Your task to perform on an android device: turn off priority inbox in the gmail app Image 0: 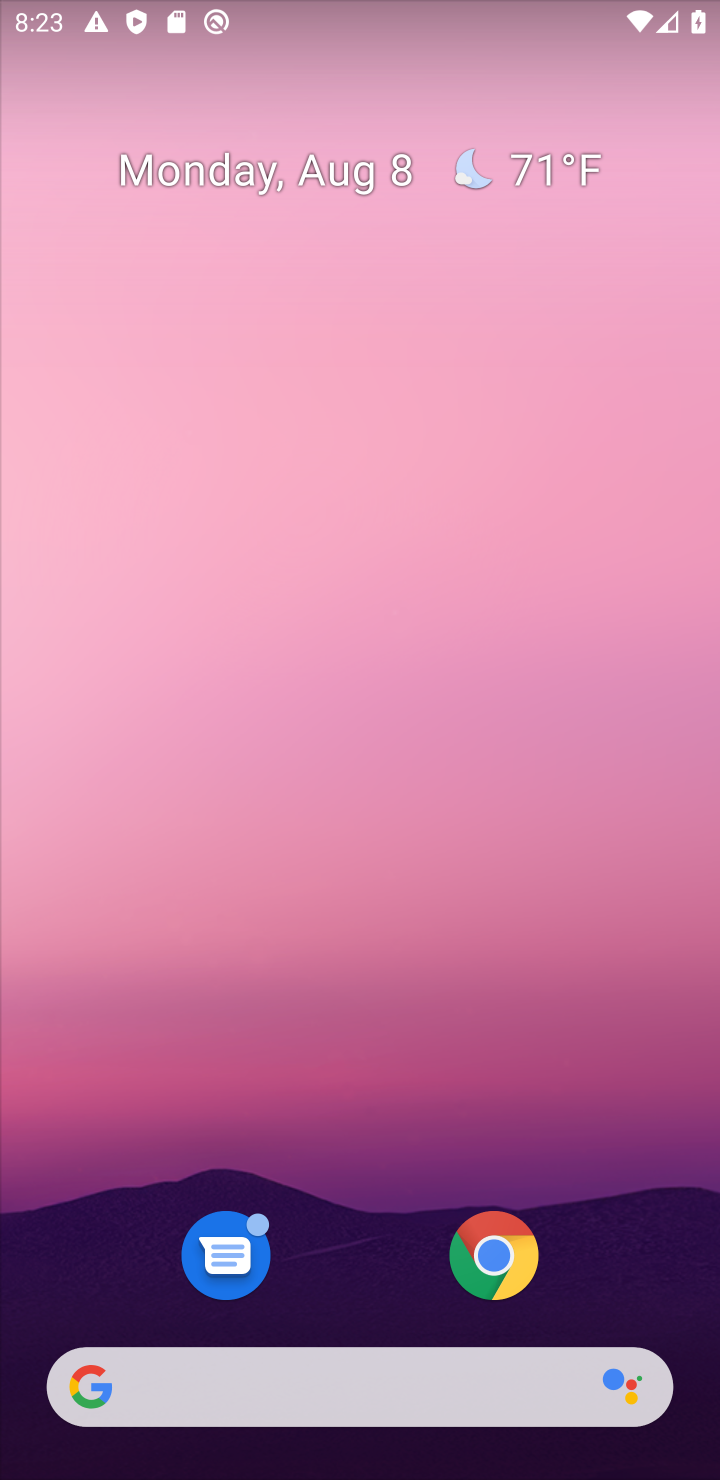
Step 0: drag from (371, 1291) to (358, 27)
Your task to perform on an android device: turn off priority inbox in the gmail app Image 1: 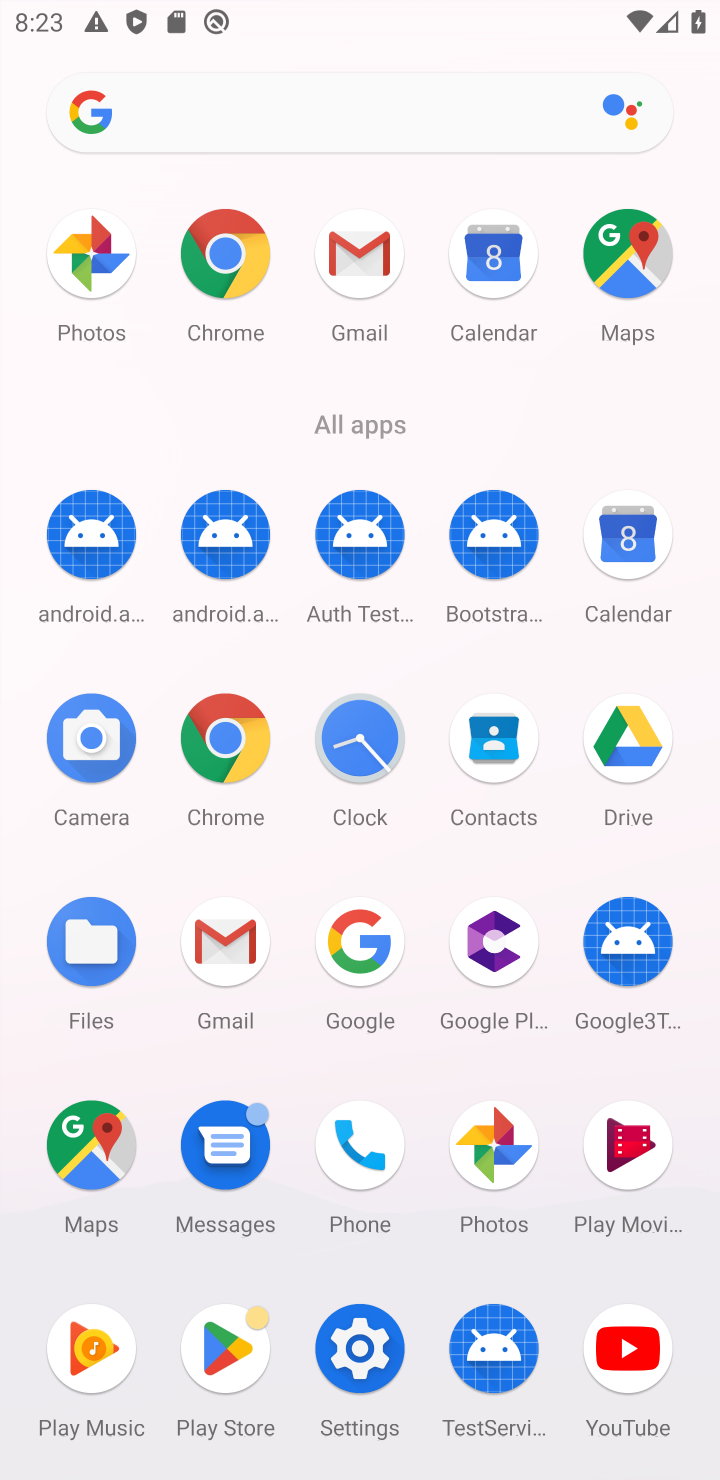
Step 1: click (230, 936)
Your task to perform on an android device: turn off priority inbox in the gmail app Image 2: 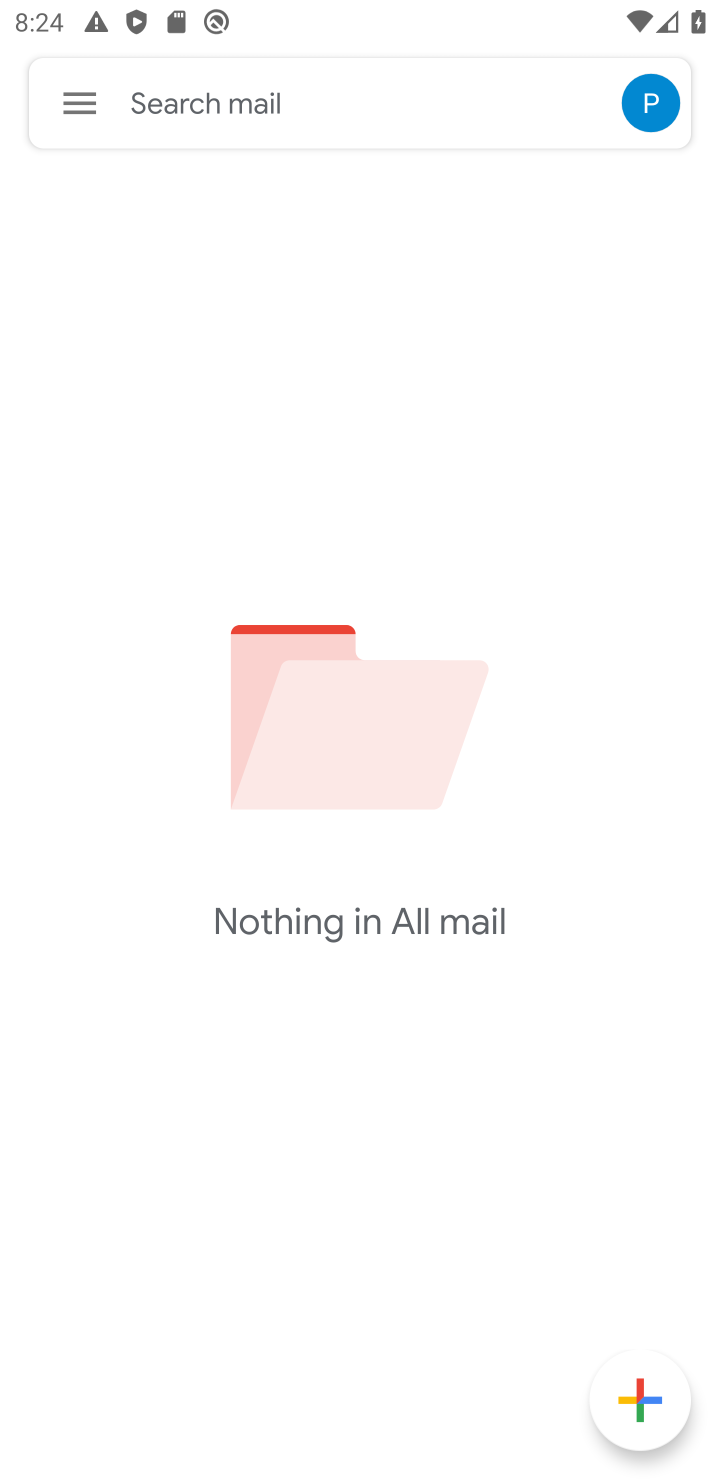
Step 2: click (62, 99)
Your task to perform on an android device: turn off priority inbox in the gmail app Image 3: 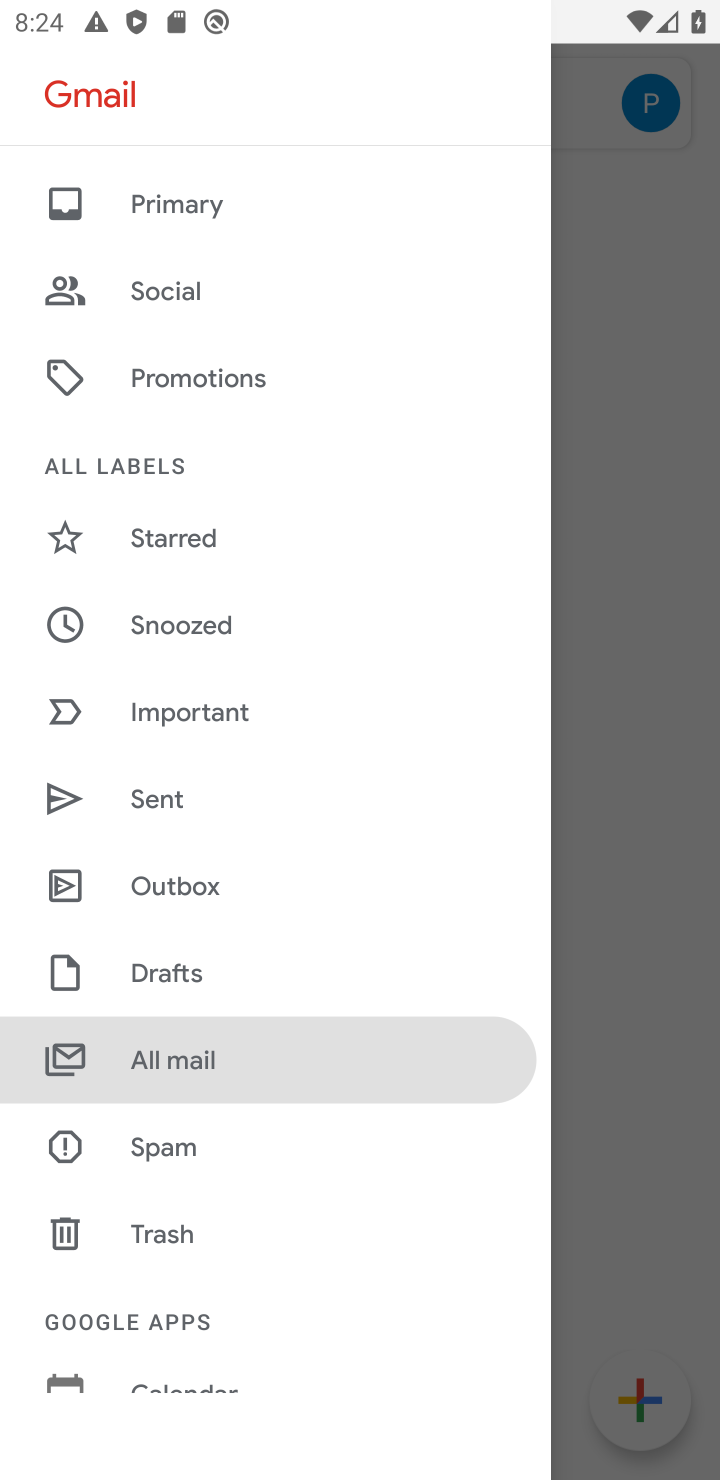
Step 3: drag from (257, 1292) to (267, 199)
Your task to perform on an android device: turn off priority inbox in the gmail app Image 4: 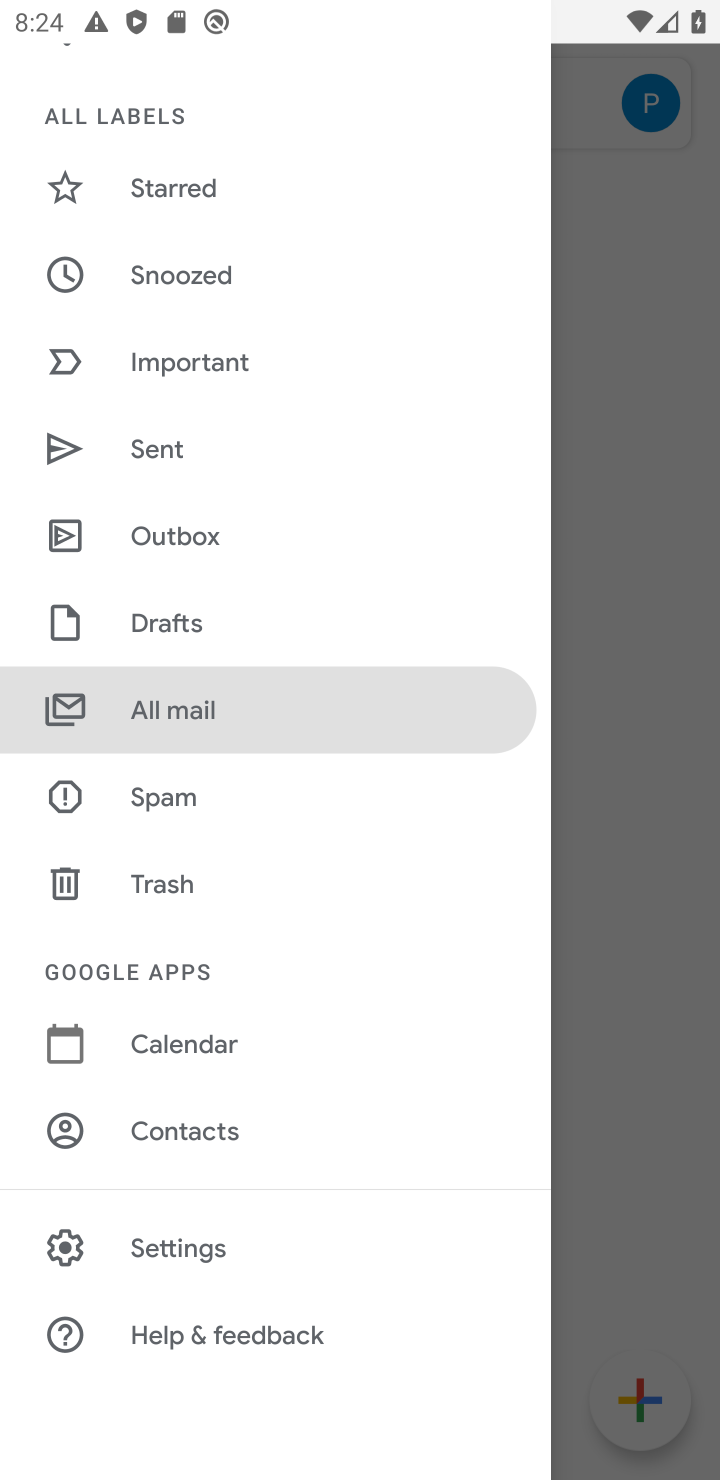
Step 4: click (239, 1244)
Your task to perform on an android device: turn off priority inbox in the gmail app Image 5: 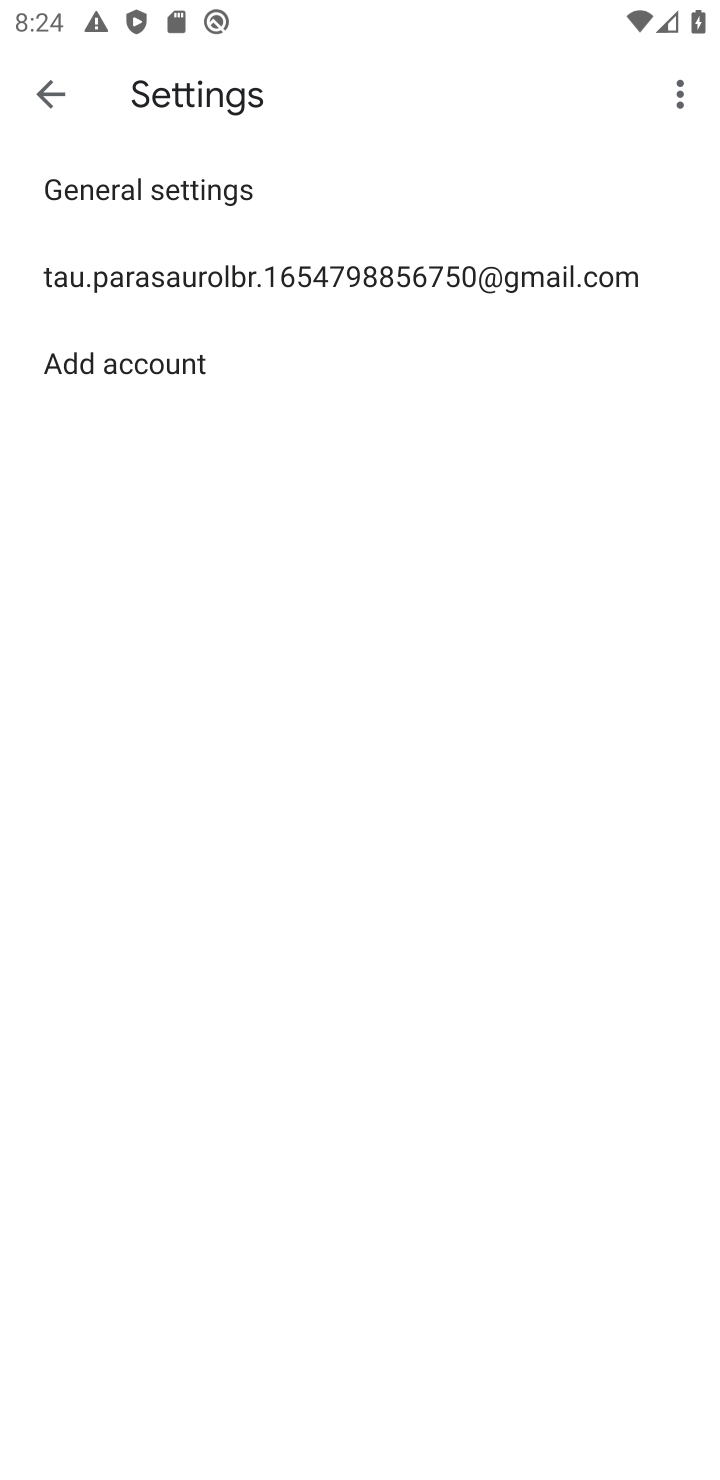
Step 5: click (285, 281)
Your task to perform on an android device: turn off priority inbox in the gmail app Image 6: 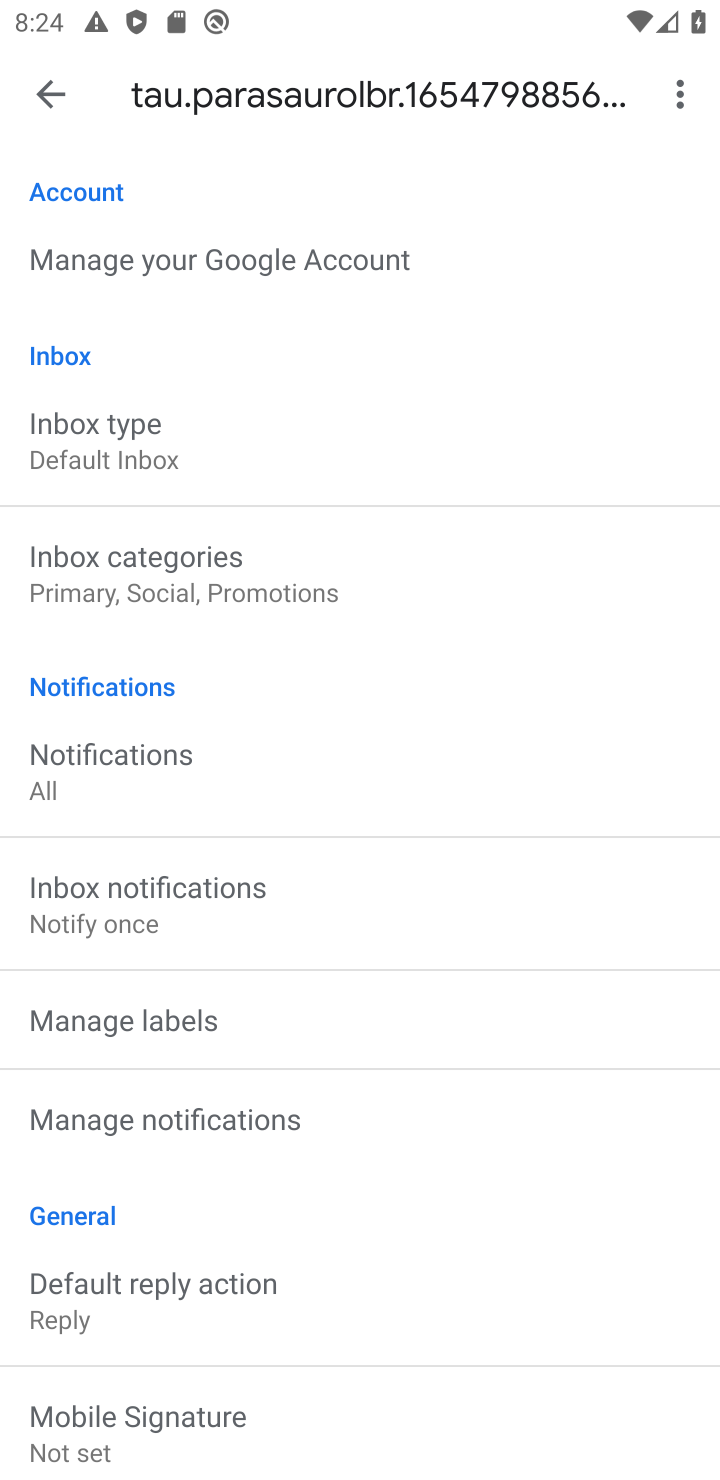
Step 6: click (272, 565)
Your task to perform on an android device: turn off priority inbox in the gmail app Image 7: 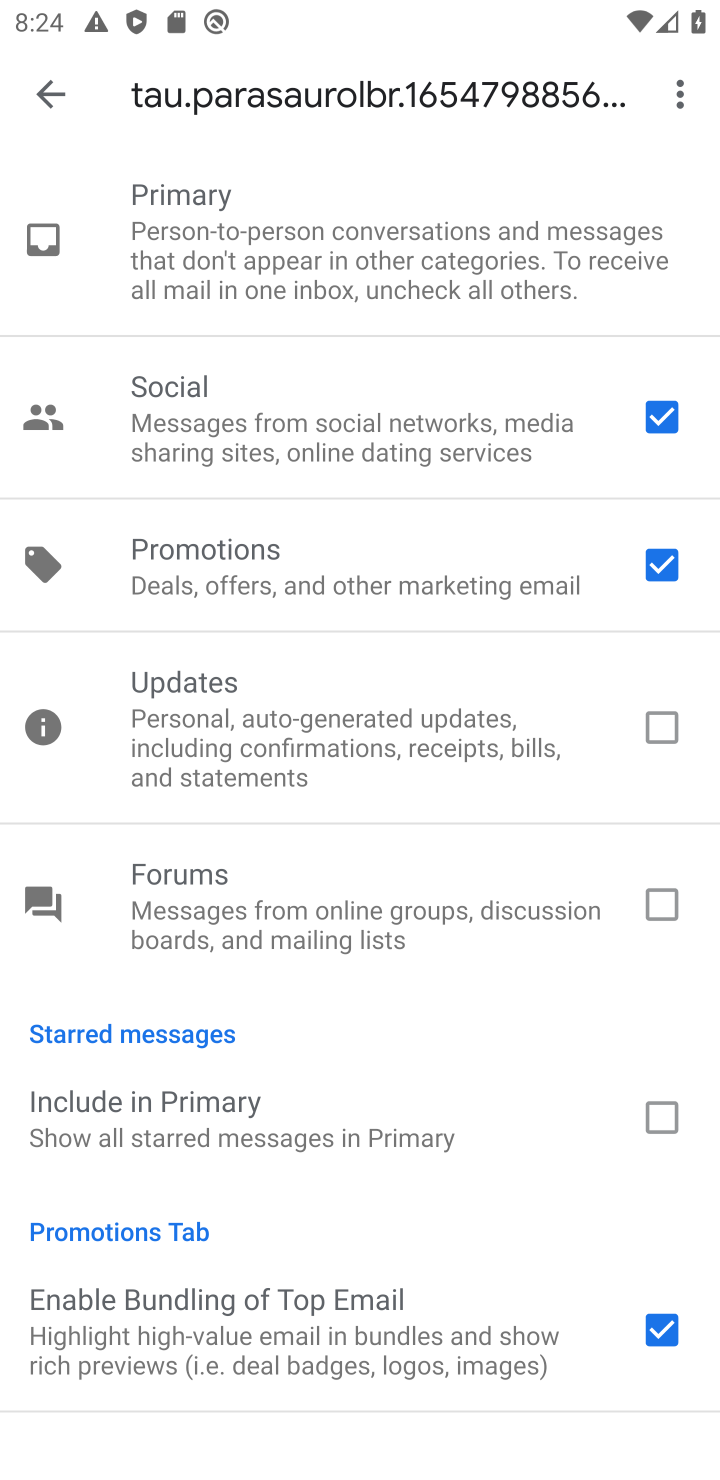
Step 7: click (46, 102)
Your task to perform on an android device: turn off priority inbox in the gmail app Image 8: 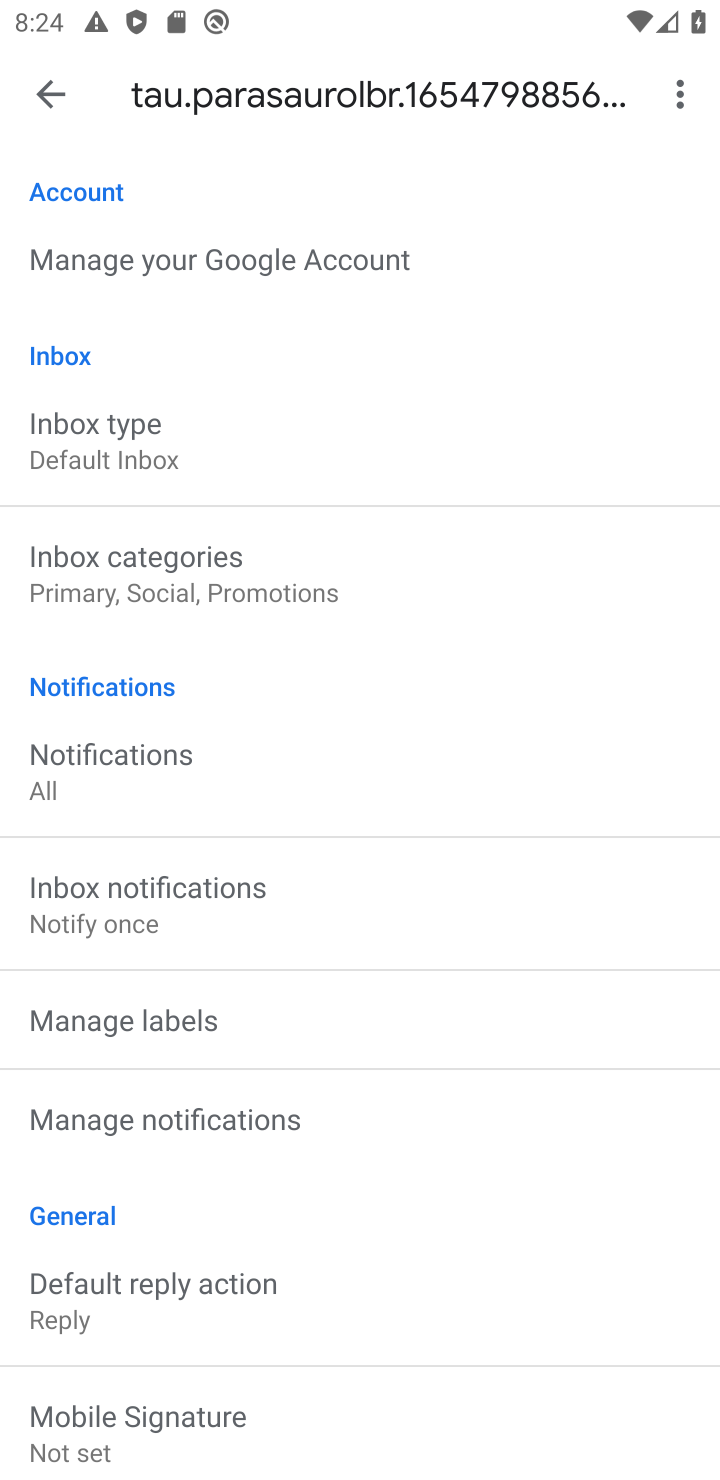
Step 8: drag from (290, 449) to (272, 1407)
Your task to perform on an android device: turn off priority inbox in the gmail app Image 9: 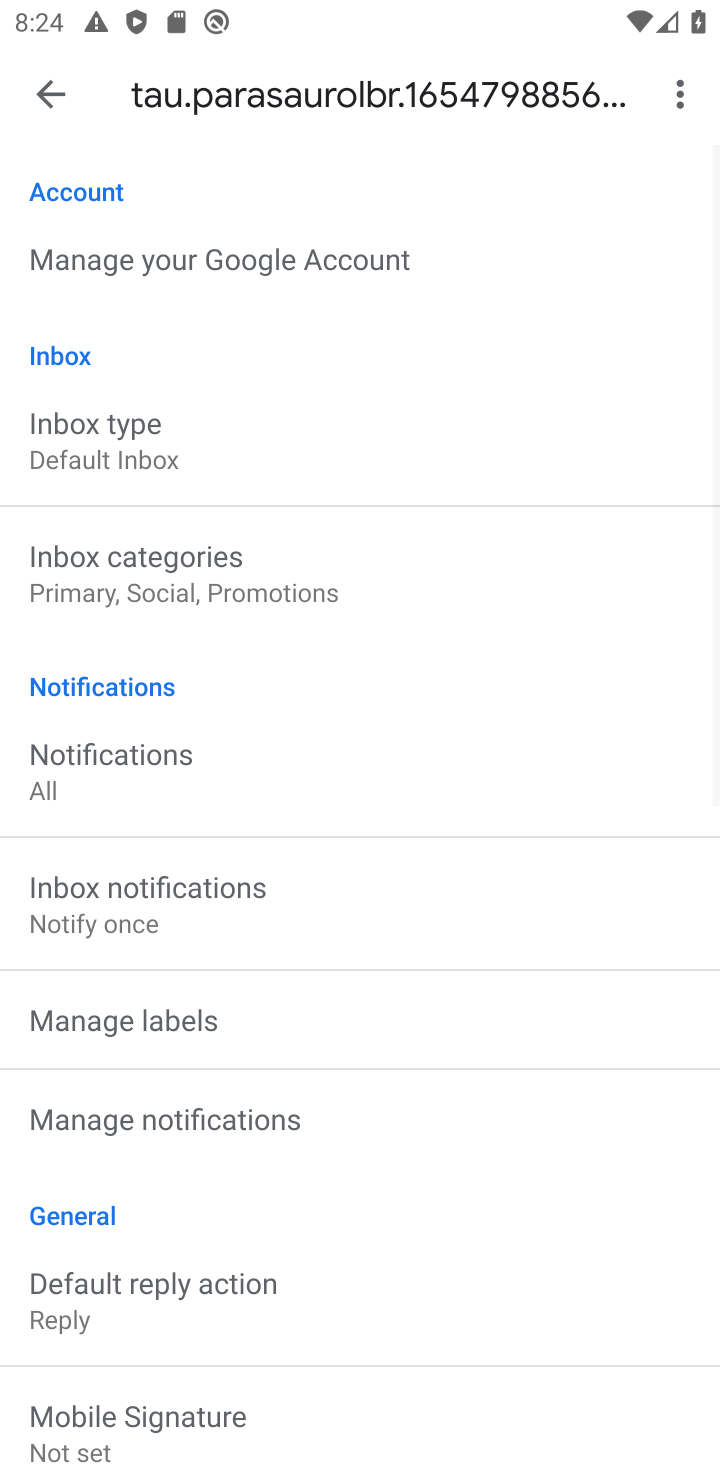
Step 9: click (176, 445)
Your task to perform on an android device: turn off priority inbox in the gmail app Image 10: 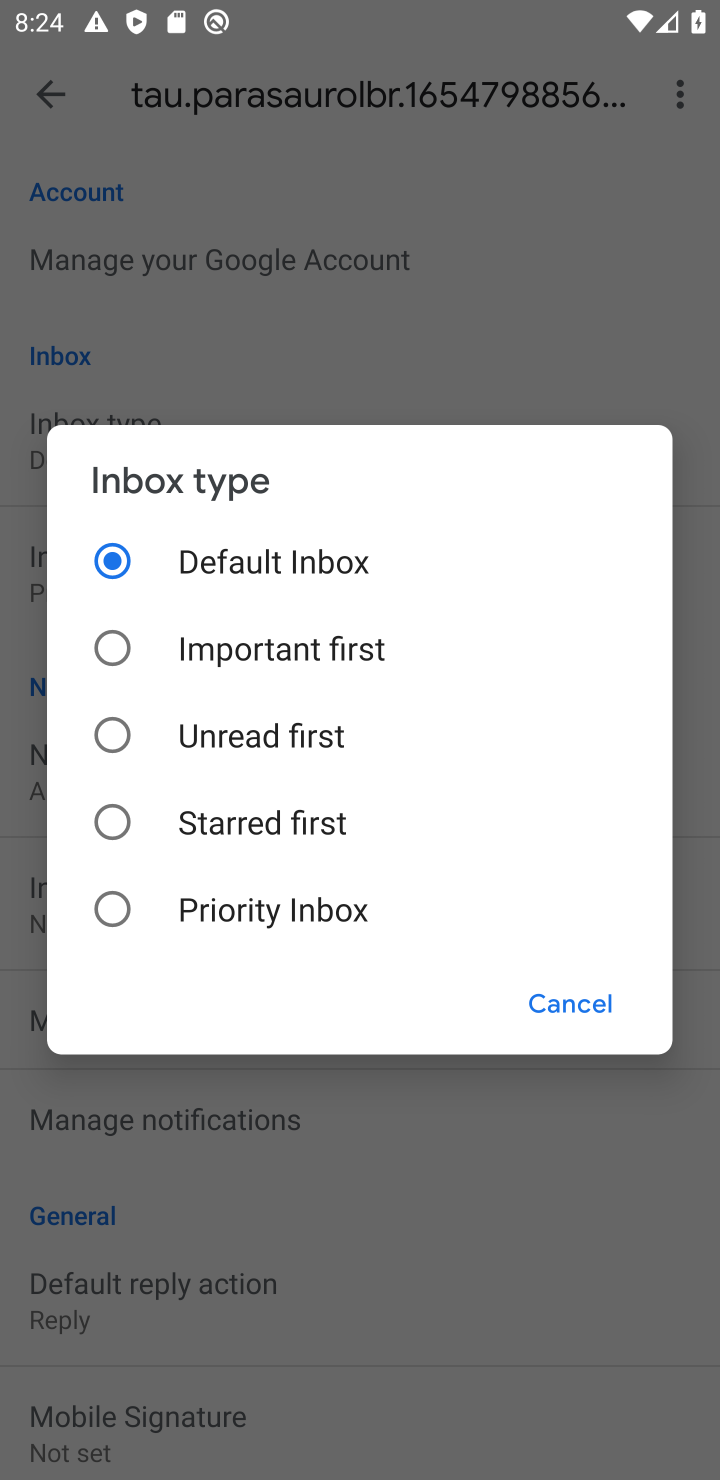
Step 10: click (107, 825)
Your task to perform on an android device: turn off priority inbox in the gmail app Image 11: 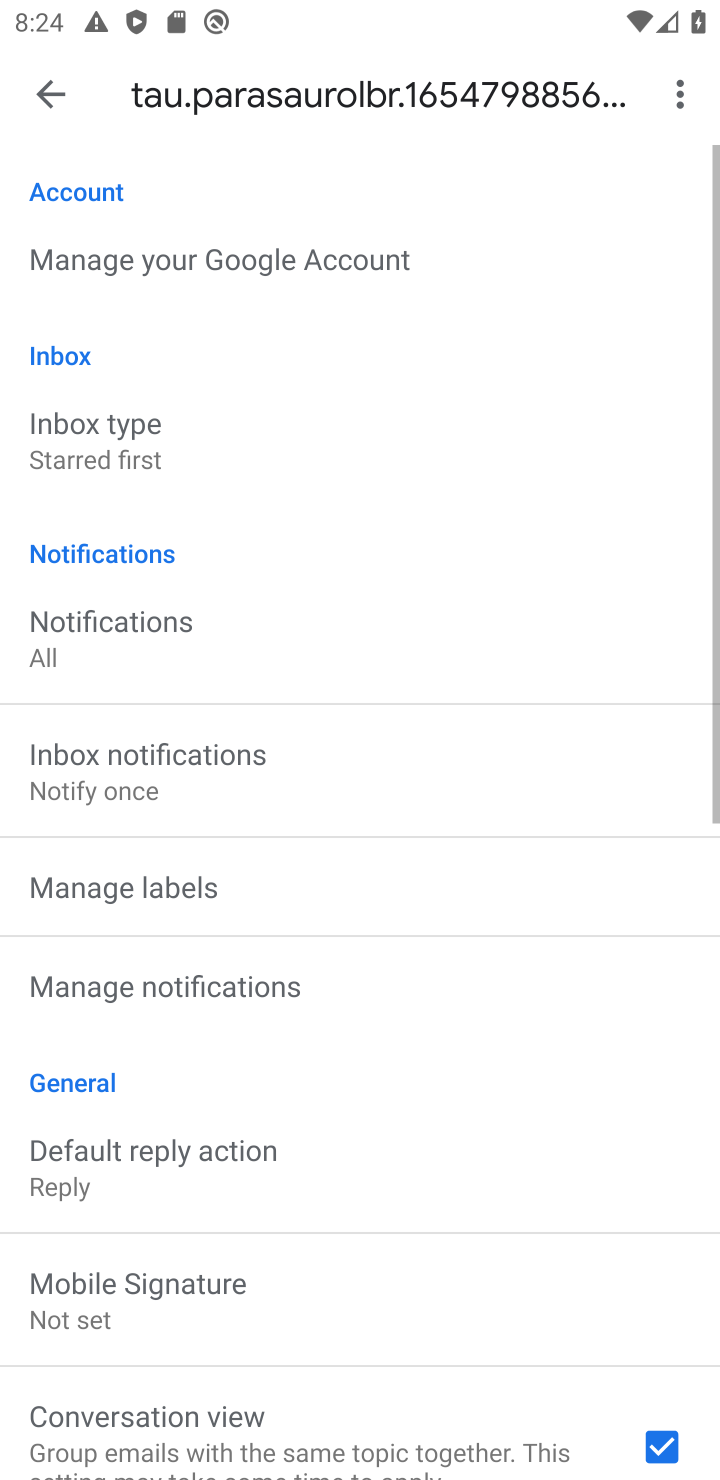
Step 11: task complete